Your task to perform on an android device: What's on the menu at Denny's? Image 0: 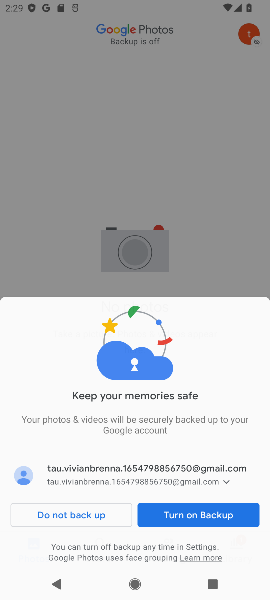
Step 0: press home button
Your task to perform on an android device: What's on the menu at Denny's? Image 1: 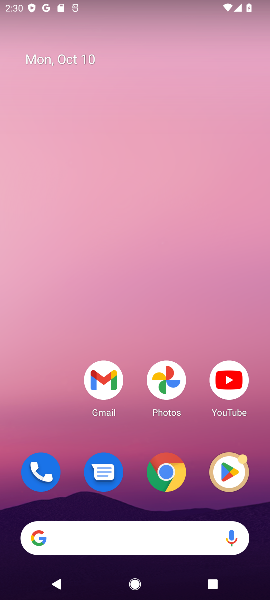
Step 1: press home button
Your task to perform on an android device: What's on the menu at Denny's? Image 2: 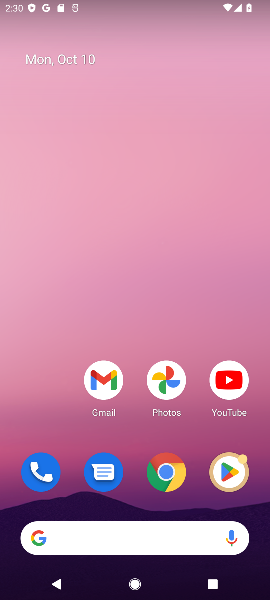
Step 2: drag from (135, 466) to (155, 58)
Your task to perform on an android device: What's on the menu at Denny's? Image 3: 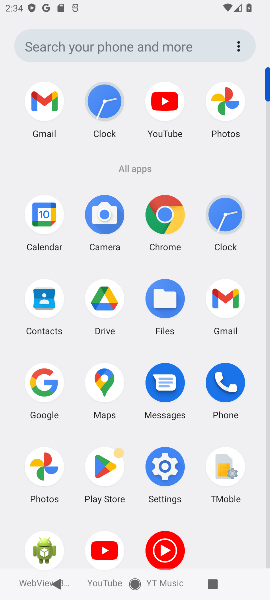
Step 3: click (41, 398)
Your task to perform on an android device: What's on the menu at Denny's? Image 4: 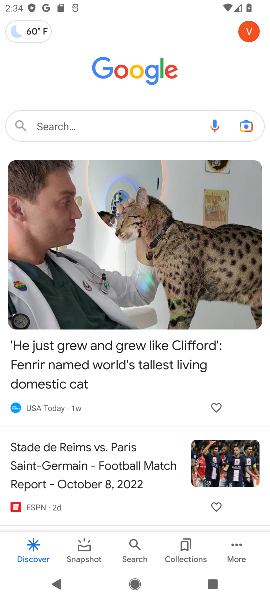
Step 4: click (101, 123)
Your task to perform on an android device: What's on the menu at Denny's? Image 5: 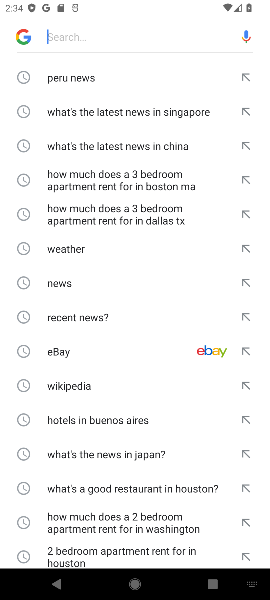
Step 5: type "What's on the menu at Denny's"
Your task to perform on an android device: What's on the menu at Denny's? Image 6: 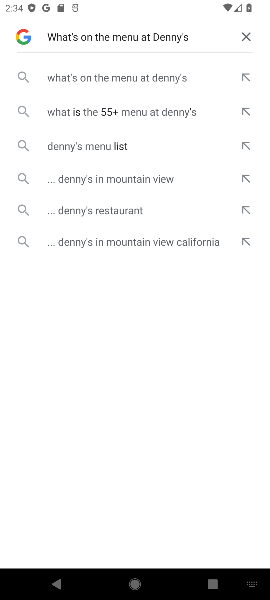
Step 6: click (167, 74)
Your task to perform on an android device: What's on the menu at Denny's? Image 7: 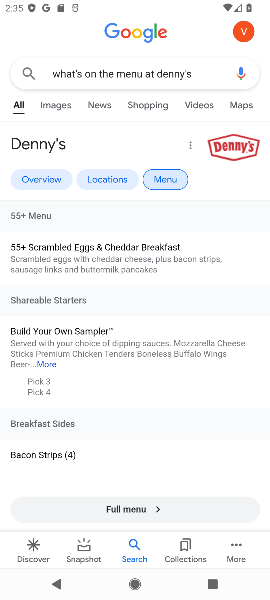
Step 7: click (50, 476)
Your task to perform on an android device: What's on the menu at Denny's? Image 8: 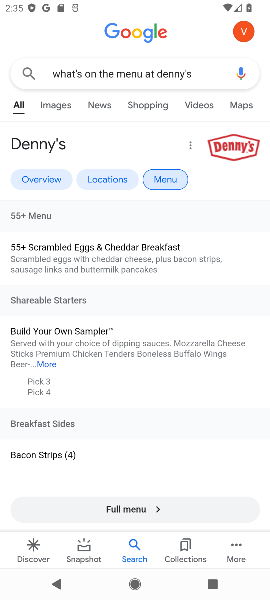
Step 8: task complete